Your task to perform on an android device: Open the phone app and click the voicemail tab. Image 0: 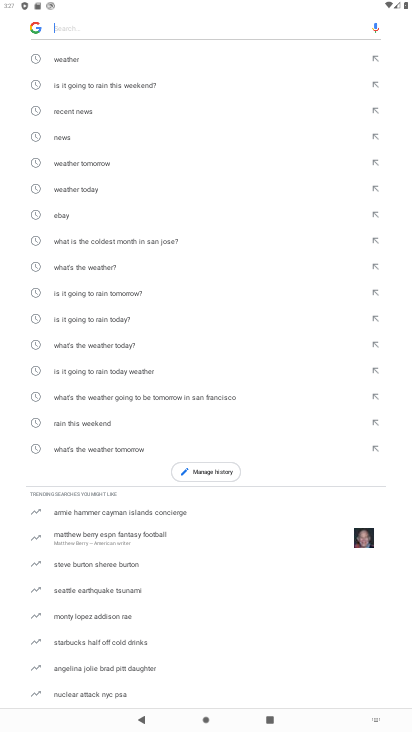
Step 0: click (70, 386)
Your task to perform on an android device: Open the phone app and click the voicemail tab. Image 1: 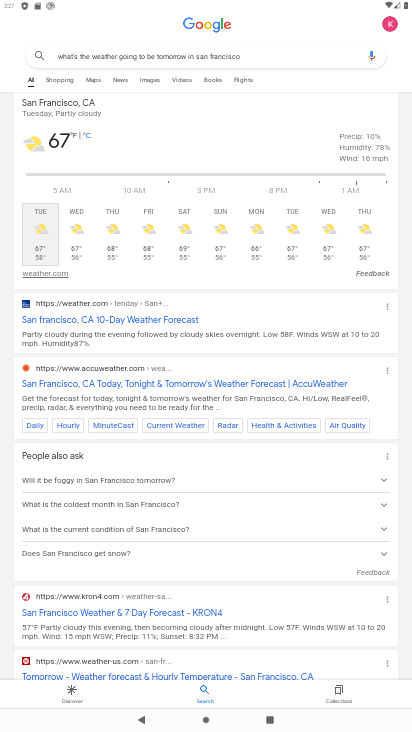
Step 1: press home button
Your task to perform on an android device: Open the phone app and click the voicemail tab. Image 2: 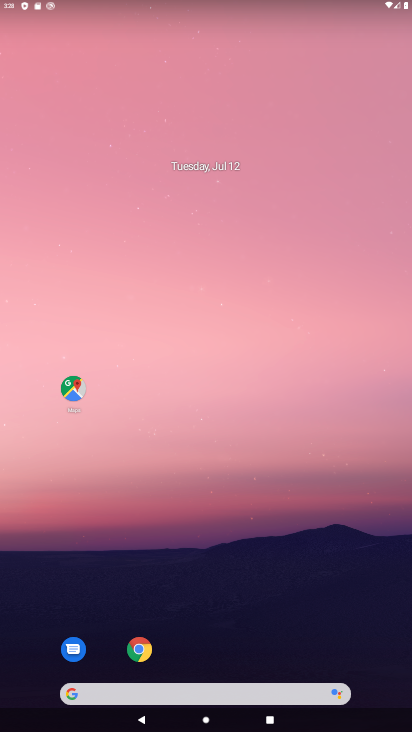
Step 2: drag from (144, 591) to (188, 239)
Your task to perform on an android device: Open the phone app and click the voicemail tab. Image 3: 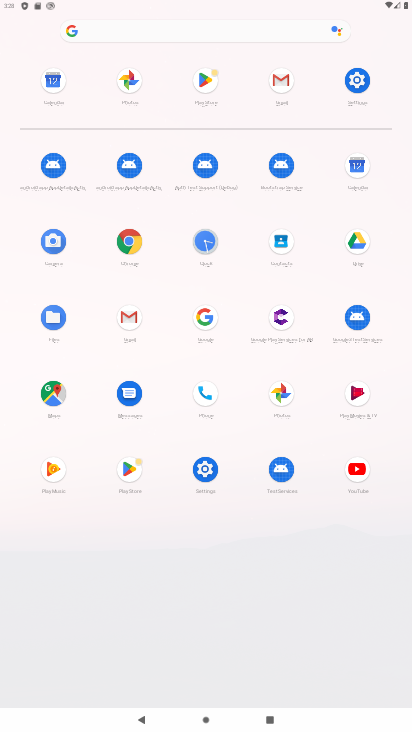
Step 3: click (213, 391)
Your task to perform on an android device: Open the phone app and click the voicemail tab. Image 4: 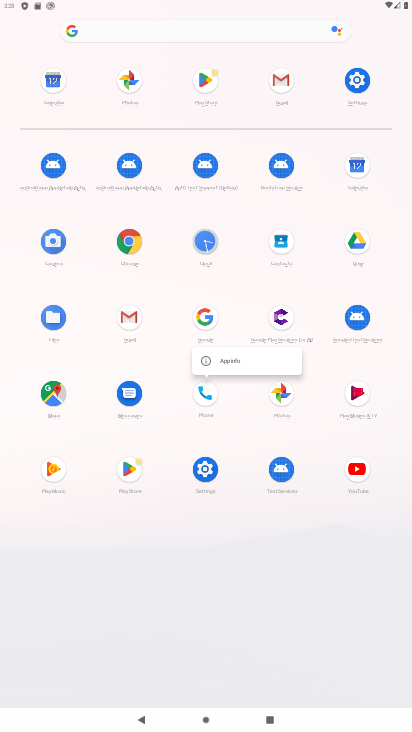
Step 4: click (213, 391)
Your task to perform on an android device: Open the phone app and click the voicemail tab. Image 5: 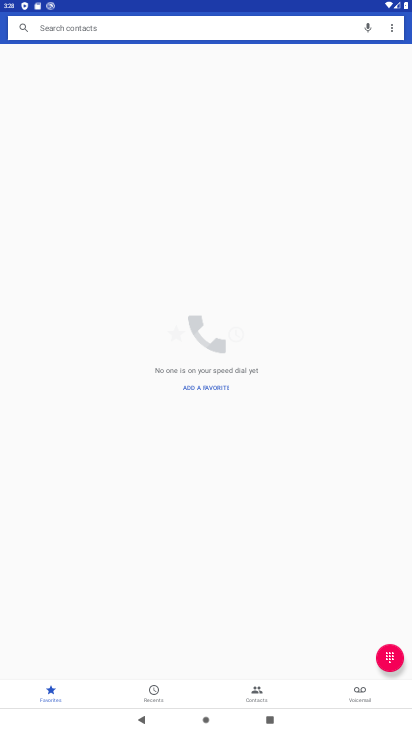
Step 5: click (361, 686)
Your task to perform on an android device: Open the phone app and click the voicemail tab. Image 6: 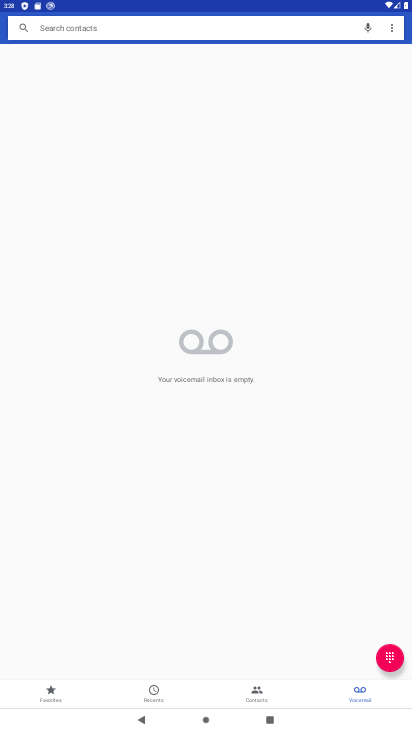
Step 6: task complete